Your task to perform on an android device: turn on notifications settings in the gmail app Image 0: 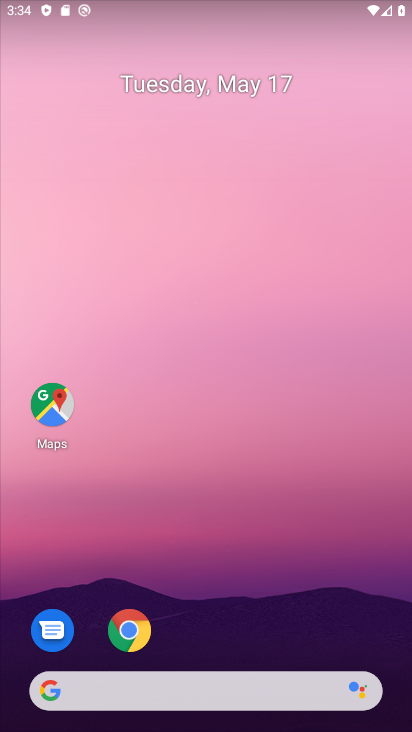
Step 0: drag from (185, 646) to (282, 122)
Your task to perform on an android device: turn on notifications settings in the gmail app Image 1: 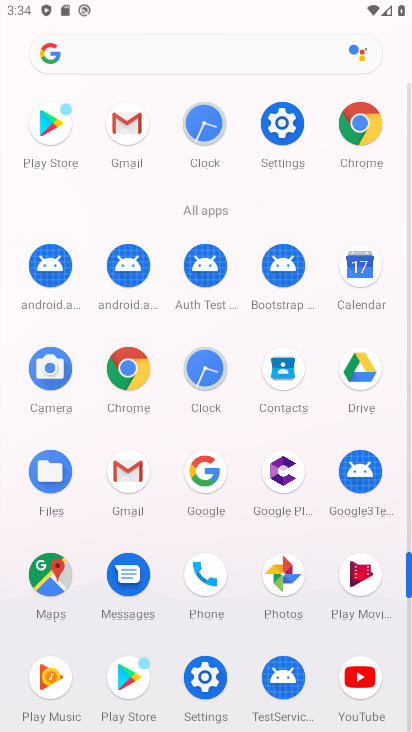
Step 1: click (123, 476)
Your task to perform on an android device: turn on notifications settings in the gmail app Image 2: 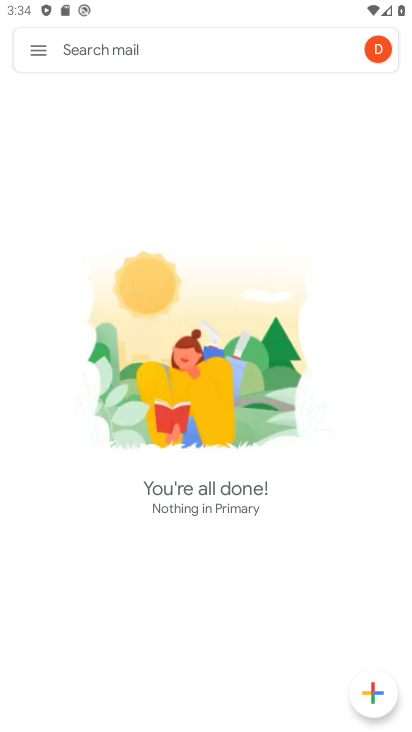
Step 2: click (51, 49)
Your task to perform on an android device: turn on notifications settings in the gmail app Image 3: 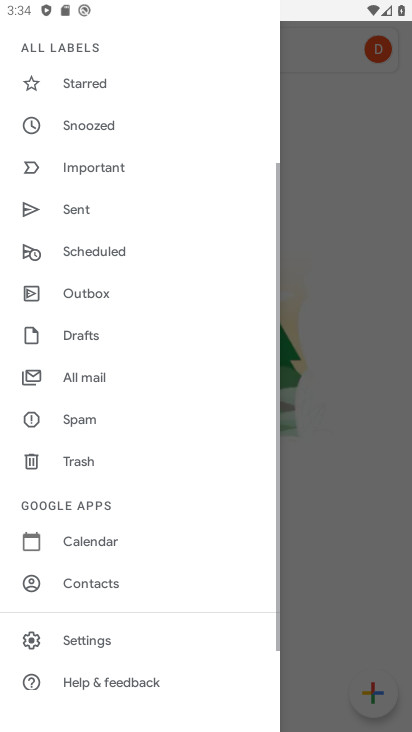
Step 3: drag from (141, 554) to (193, 212)
Your task to perform on an android device: turn on notifications settings in the gmail app Image 4: 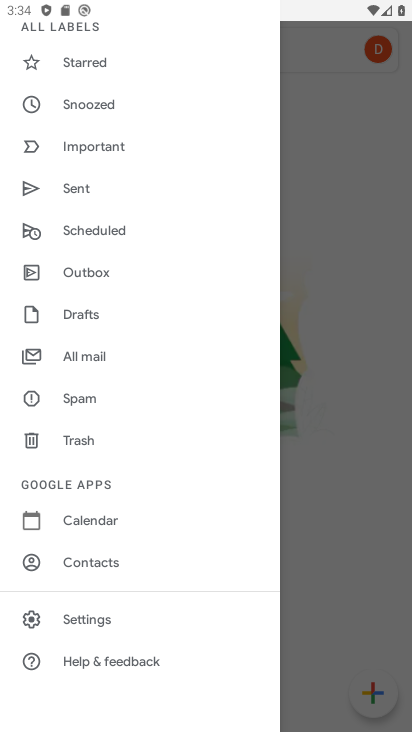
Step 4: click (140, 623)
Your task to perform on an android device: turn on notifications settings in the gmail app Image 5: 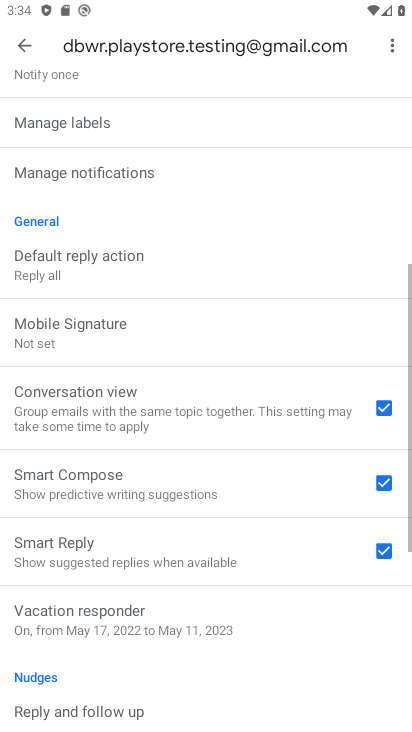
Step 5: drag from (159, 638) to (285, 203)
Your task to perform on an android device: turn on notifications settings in the gmail app Image 6: 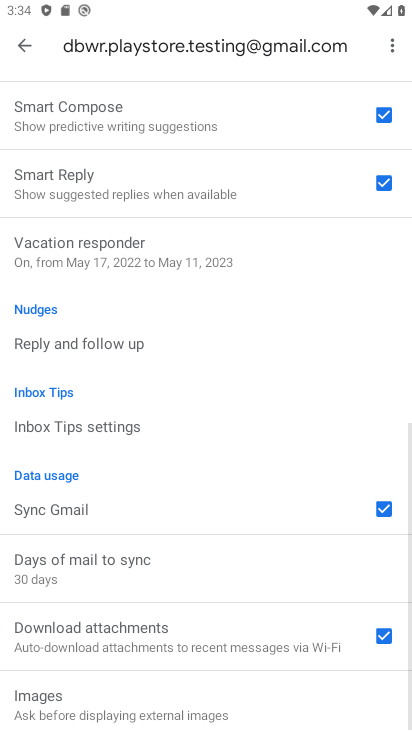
Step 6: drag from (138, 621) to (260, 685)
Your task to perform on an android device: turn on notifications settings in the gmail app Image 7: 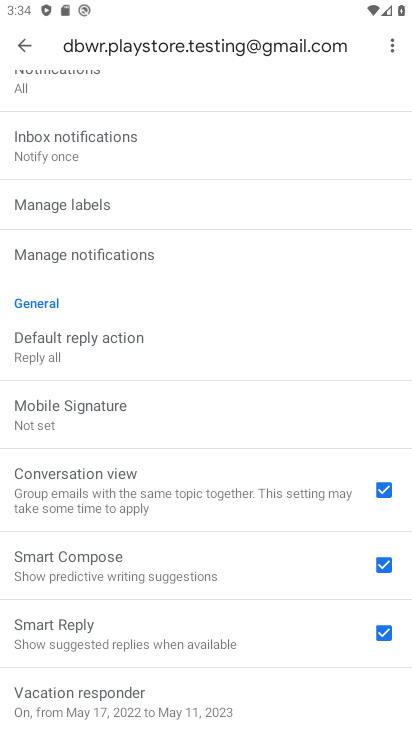
Step 7: click (171, 267)
Your task to perform on an android device: turn on notifications settings in the gmail app Image 8: 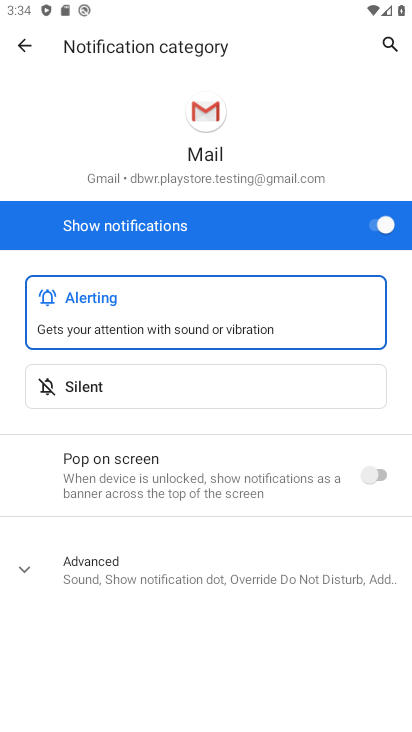
Step 8: task complete